Your task to perform on an android device: turn off smart reply in the gmail app Image 0: 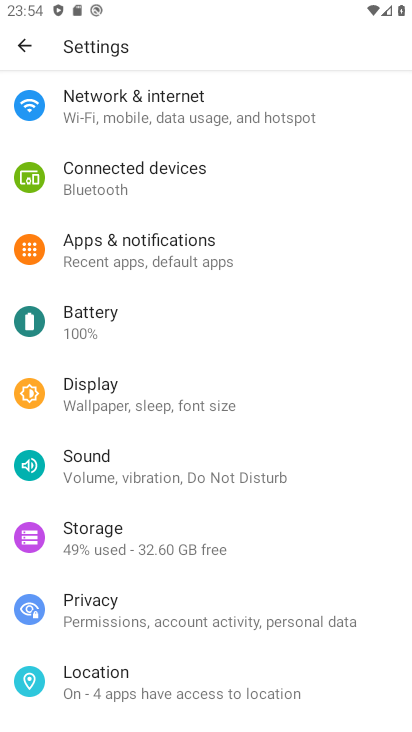
Step 0: press home button
Your task to perform on an android device: turn off smart reply in the gmail app Image 1: 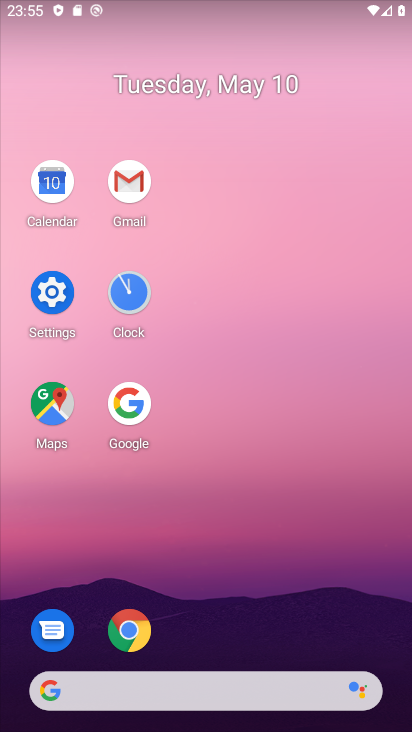
Step 1: click (117, 183)
Your task to perform on an android device: turn off smart reply in the gmail app Image 2: 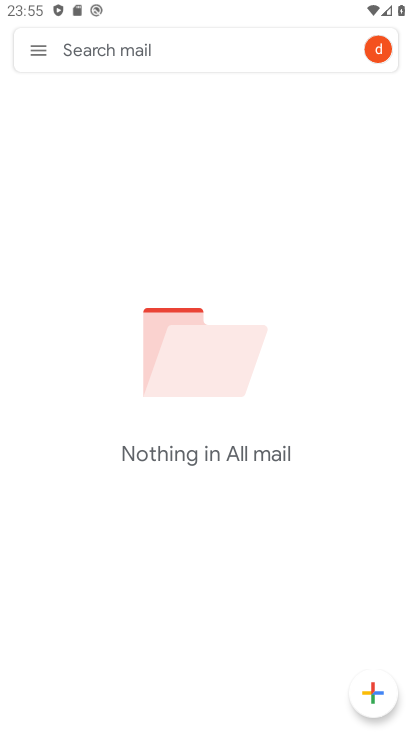
Step 2: click (43, 61)
Your task to perform on an android device: turn off smart reply in the gmail app Image 3: 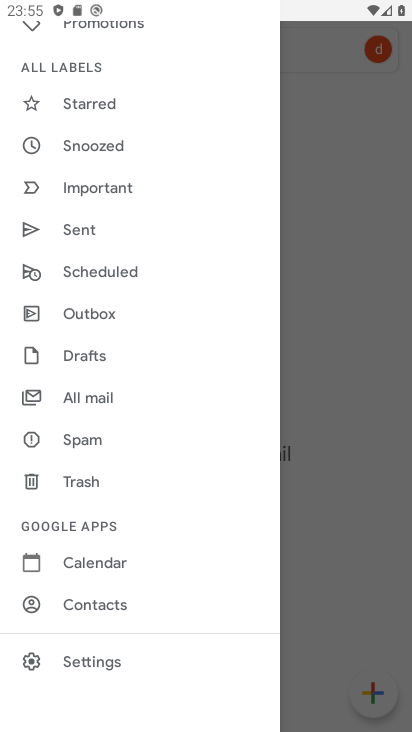
Step 3: click (133, 647)
Your task to perform on an android device: turn off smart reply in the gmail app Image 4: 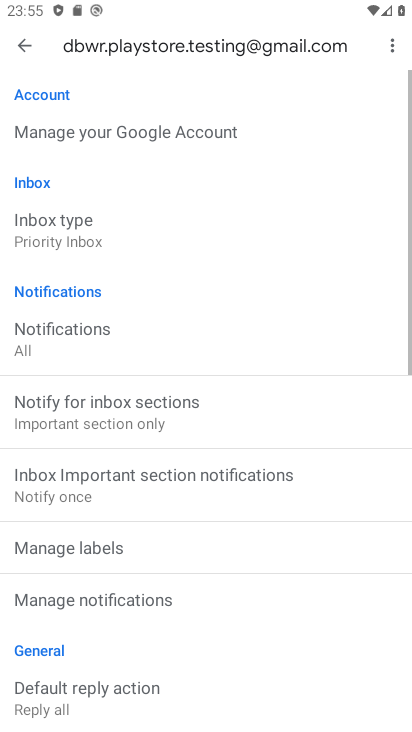
Step 4: task complete